Your task to perform on an android device: What's on my calendar tomorrow? Image 0: 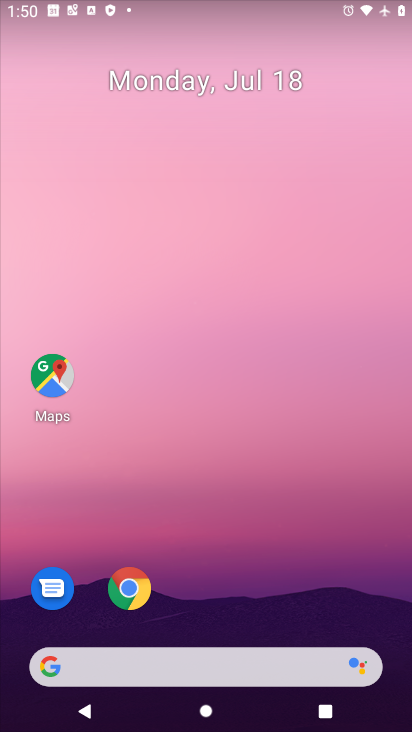
Step 0: drag from (239, 613) to (238, 232)
Your task to perform on an android device: What's on my calendar tomorrow? Image 1: 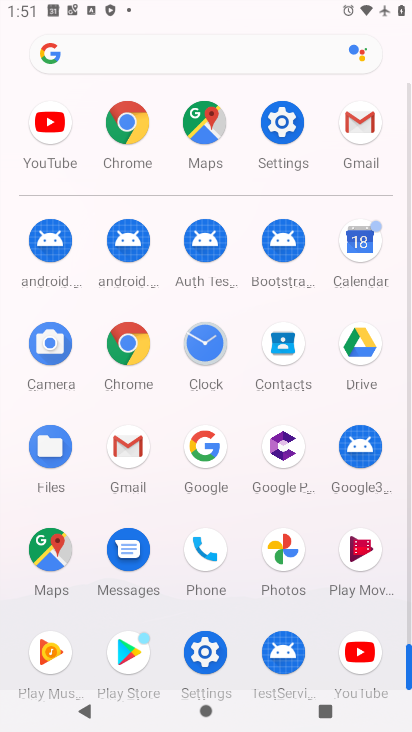
Step 1: click (357, 271)
Your task to perform on an android device: What's on my calendar tomorrow? Image 2: 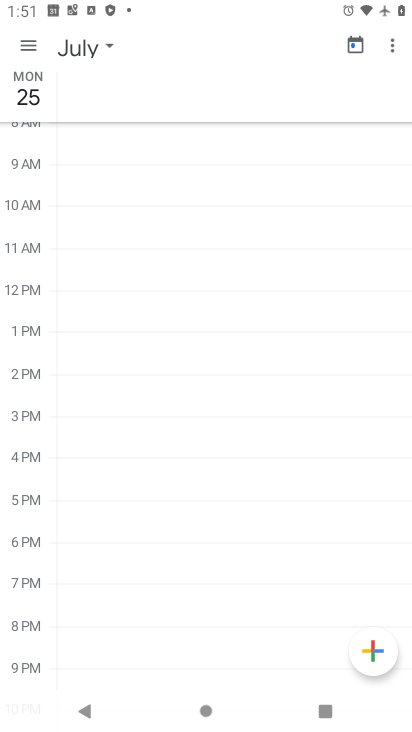
Step 2: click (89, 58)
Your task to perform on an android device: What's on my calendar tomorrow? Image 3: 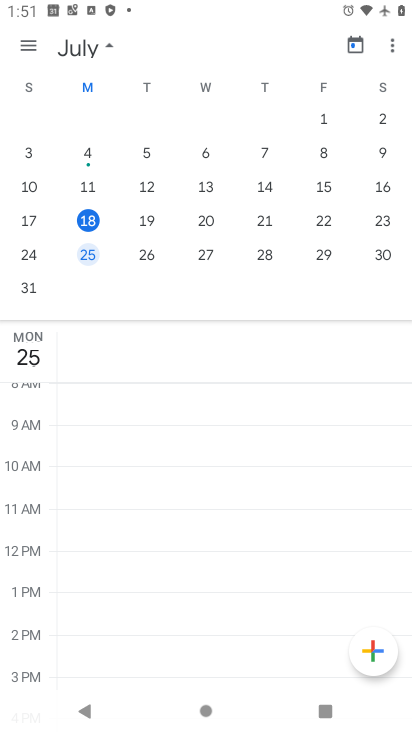
Step 3: click (89, 218)
Your task to perform on an android device: What's on my calendar tomorrow? Image 4: 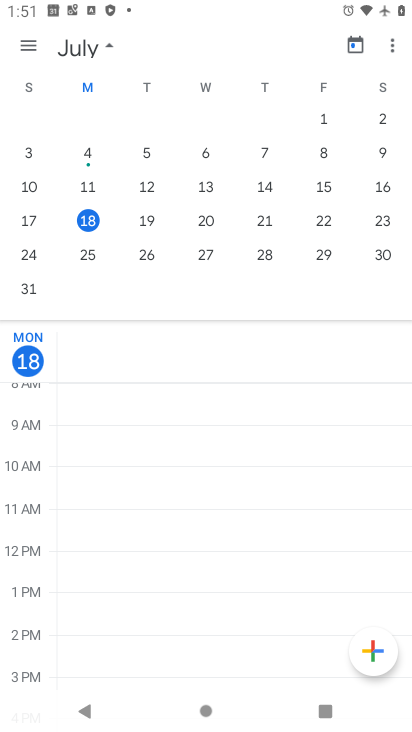
Step 4: click (47, 39)
Your task to perform on an android device: What's on my calendar tomorrow? Image 5: 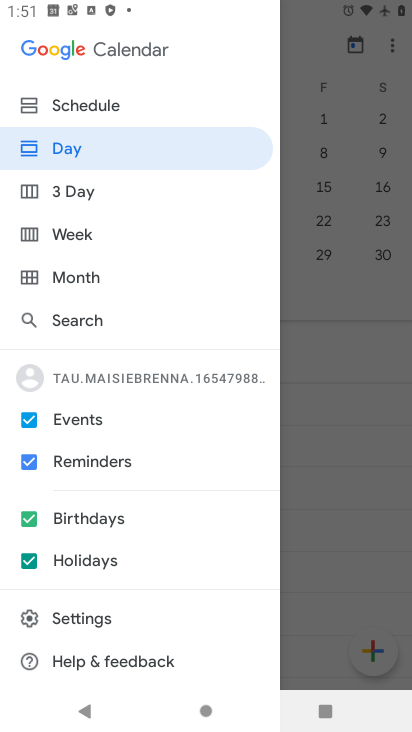
Step 5: click (129, 114)
Your task to perform on an android device: What's on my calendar tomorrow? Image 6: 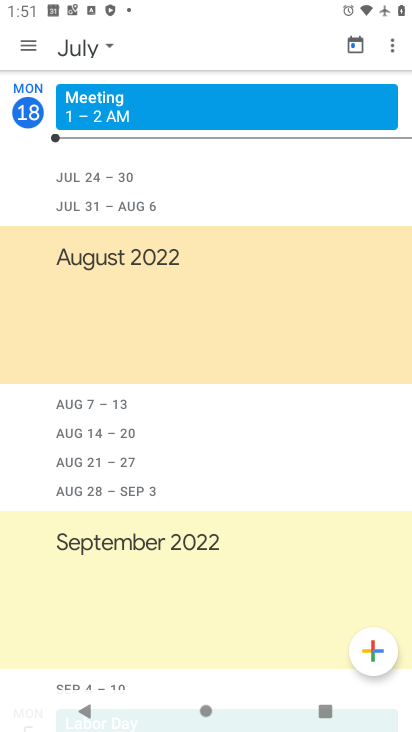
Step 6: drag from (77, 504) to (108, 369)
Your task to perform on an android device: What's on my calendar tomorrow? Image 7: 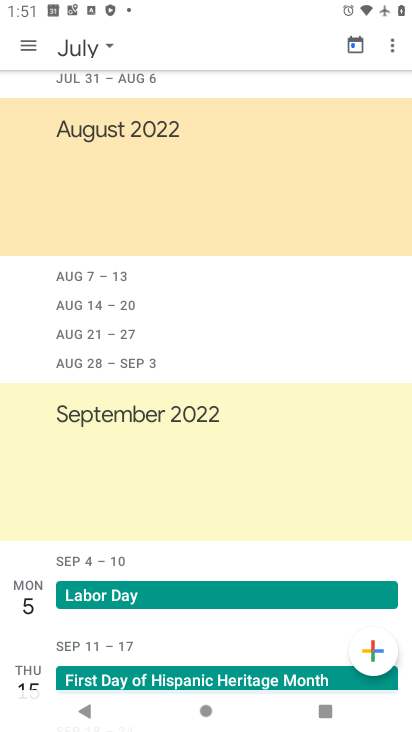
Step 7: drag from (231, 339) to (189, 538)
Your task to perform on an android device: What's on my calendar tomorrow? Image 8: 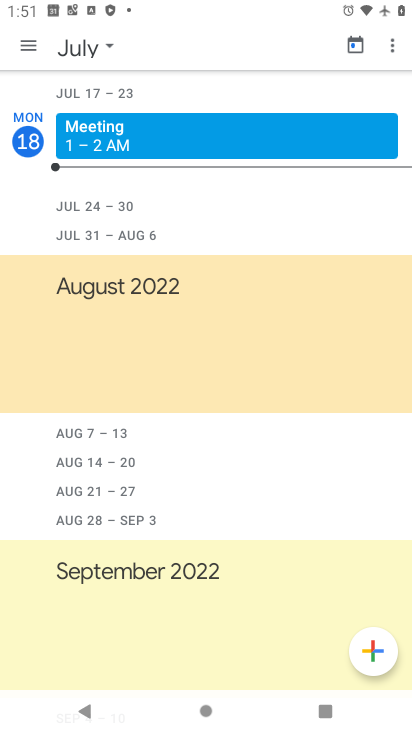
Step 8: click (107, 47)
Your task to perform on an android device: What's on my calendar tomorrow? Image 9: 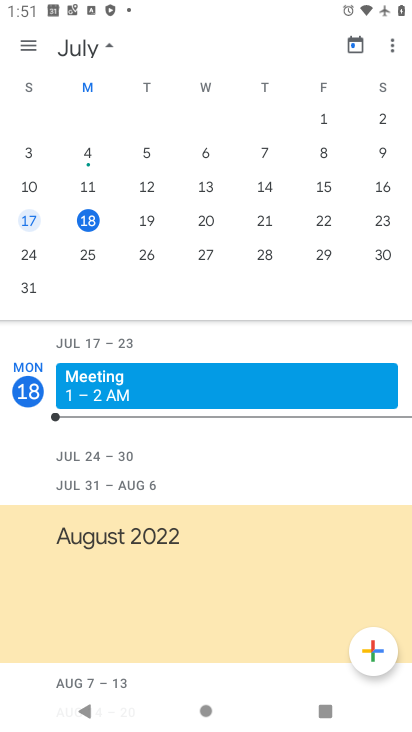
Step 9: task complete